Your task to perform on an android device: add a contact in the contacts app Image 0: 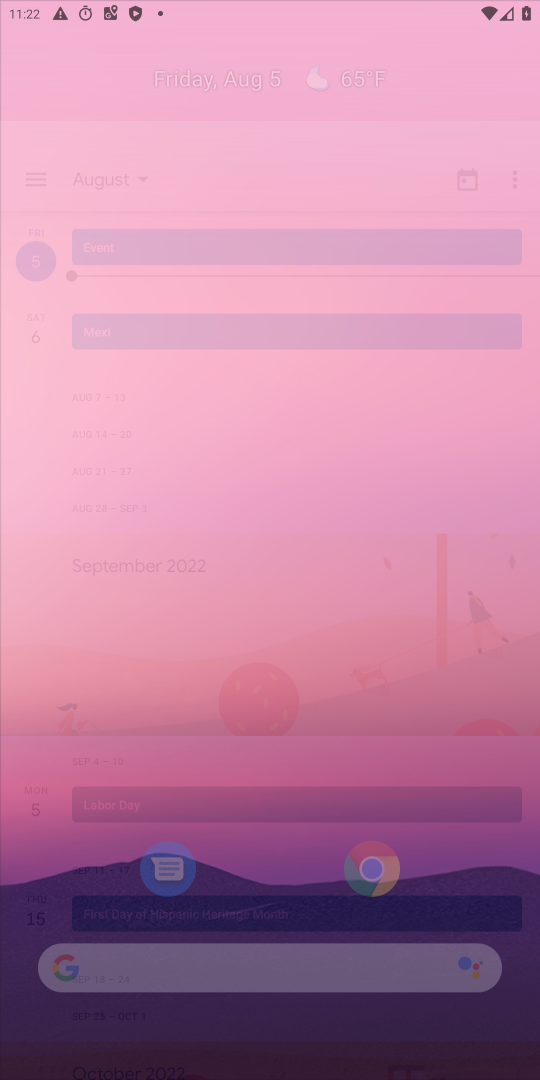
Step 0: press home button
Your task to perform on an android device: add a contact in the contacts app Image 1: 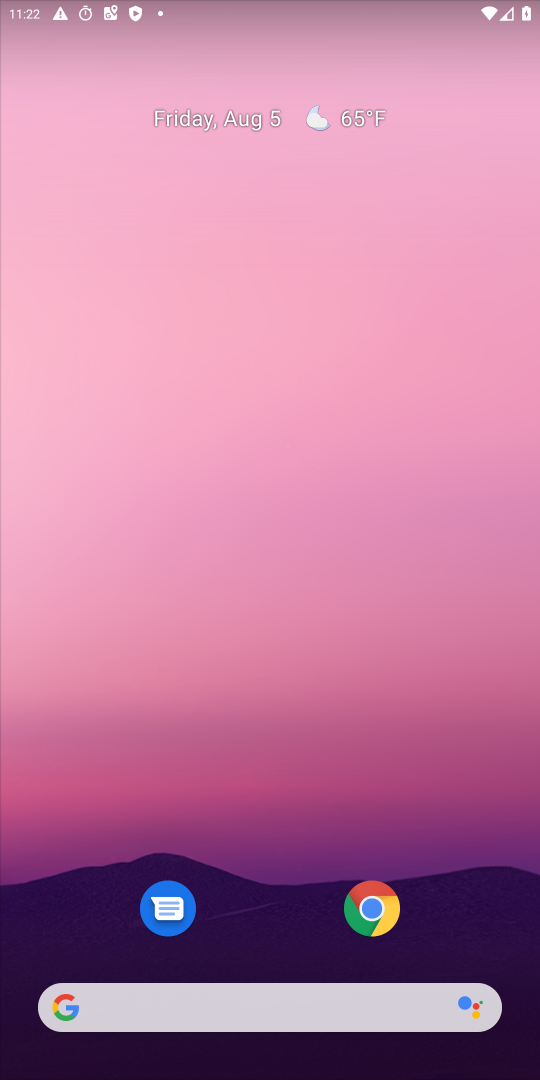
Step 1: drag from (41, 1020) to (316, 323)
Your task to perform on an android device: add a contact in the contacts app Image 2: 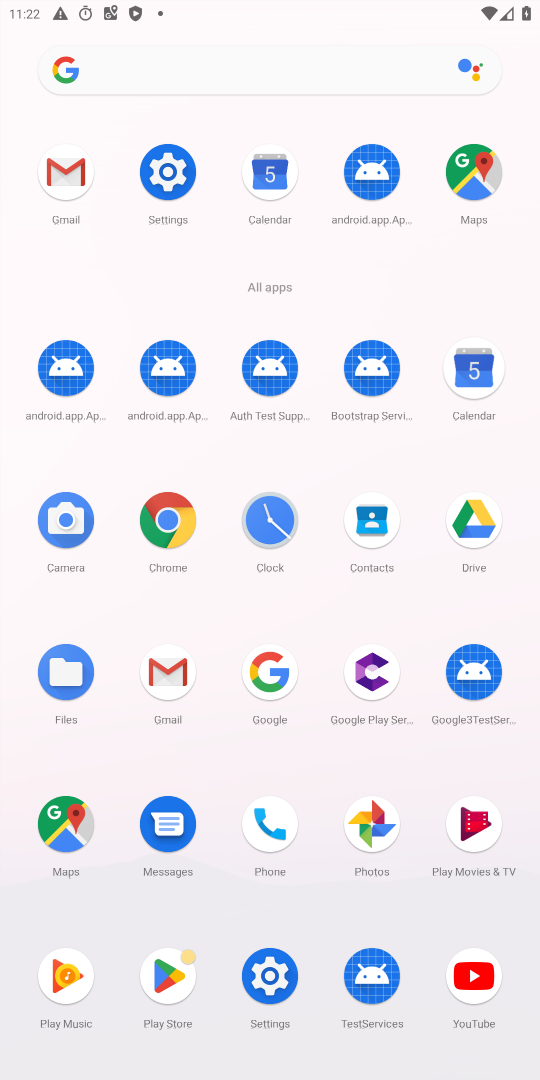
Step 2: click (271, 842)
Your task to perform on an android device: add a contact in the contacts app Image 3: 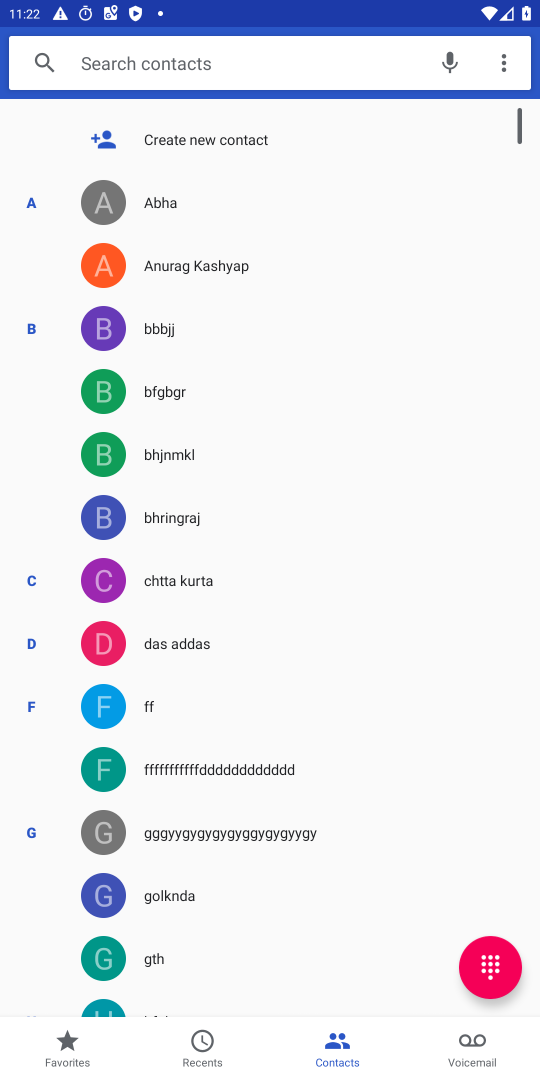
Step 3: click (222, 139)
Your task to perform on an android device: add a contact in the contacts app Image 4: 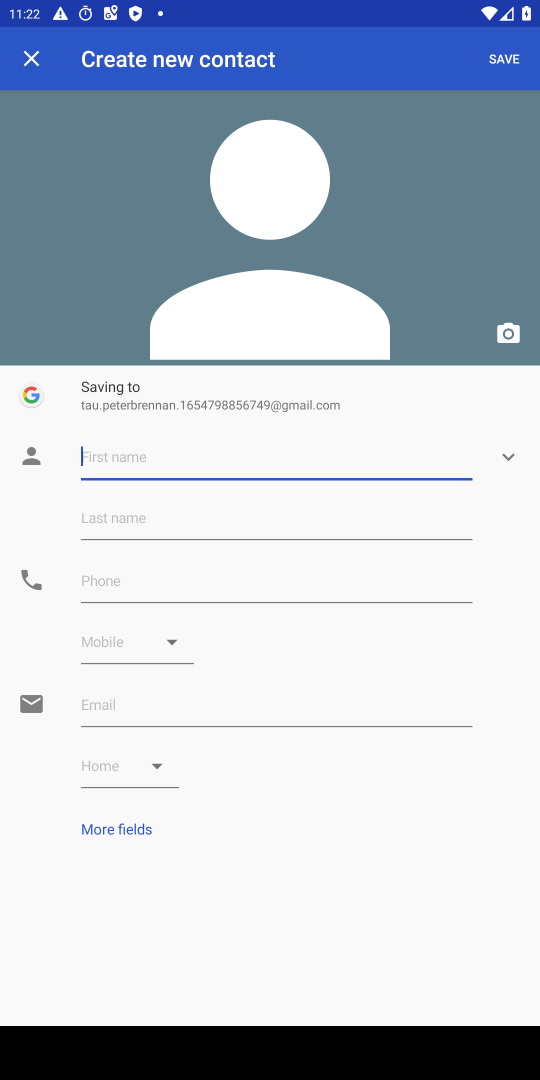
Step 4: type "reythn"
Your task to perform on an android device: add a contact in the contacts app Image 5: 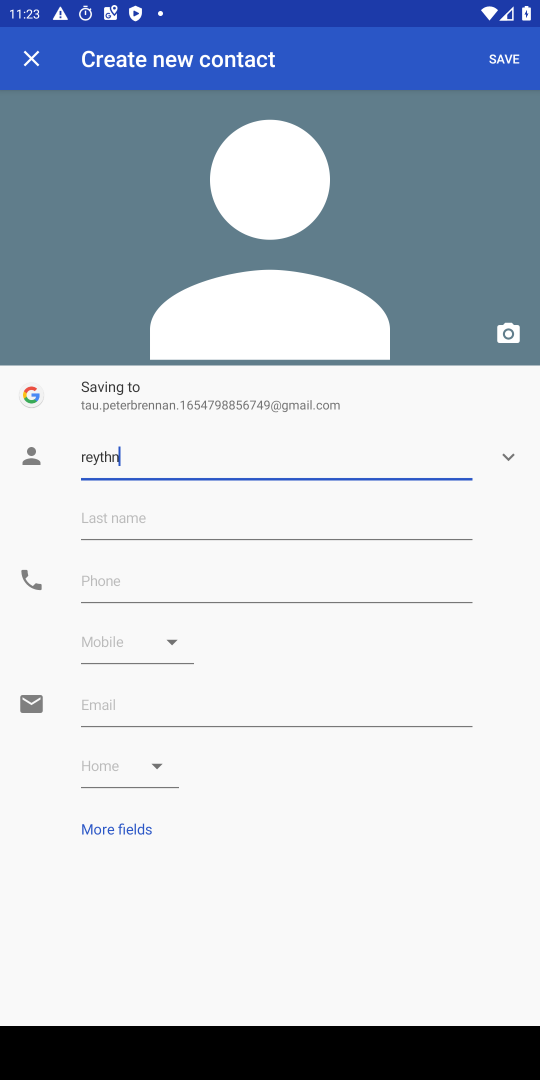
Step 5: click (501, 59)
Your task to perform on an android device: add a contact in the contacts app Image 6: 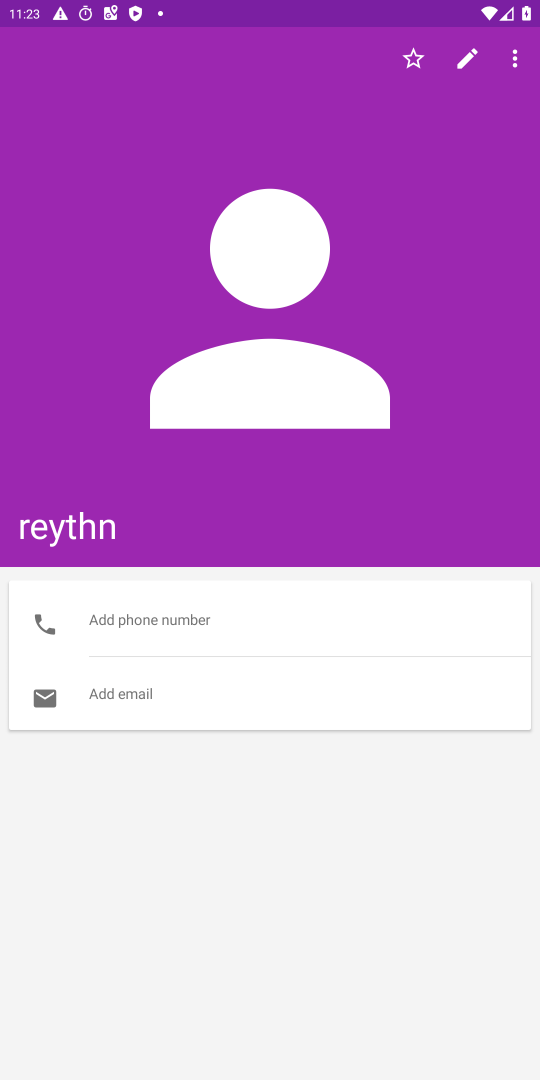
Step 6: task complete